Your task to perform on an android device: Open Reddit.com Image 0: 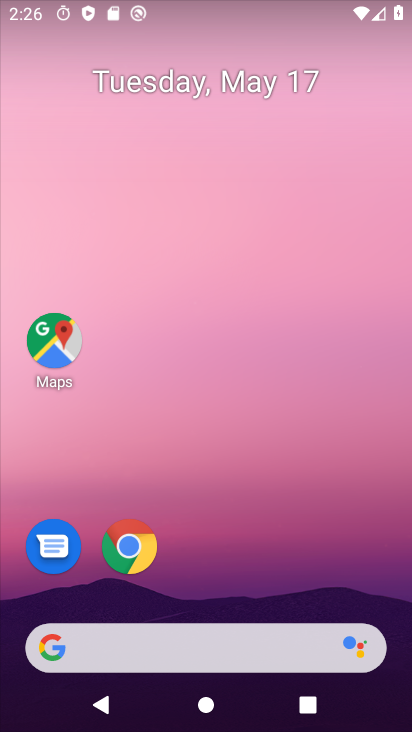
Step 0: click (133, 553)
Your task to perform on an android device: Open Reddit.com Image 1: 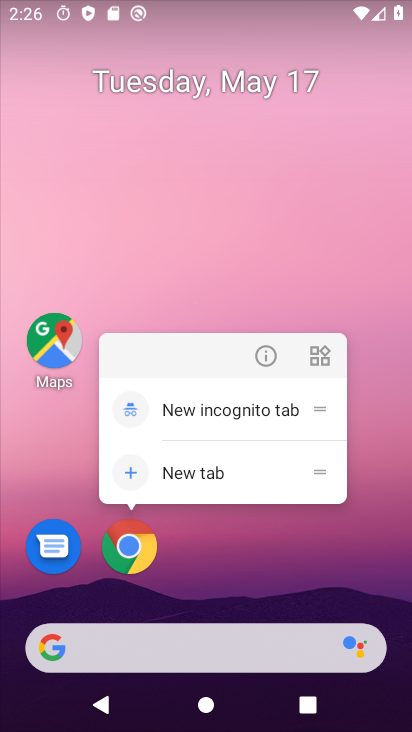
Step 1: click (132, 554)
Your task to perform on an android device: Open Reddit.com Image 2: 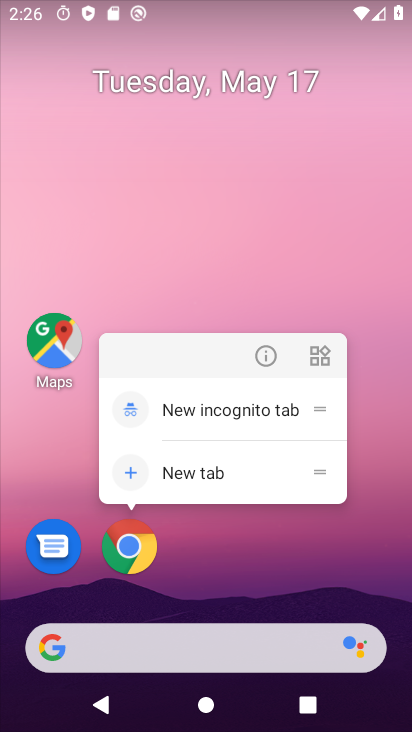
Step 2: click (124, 563)
Your task to perform on an android device: Open Reddit.com Image 3: 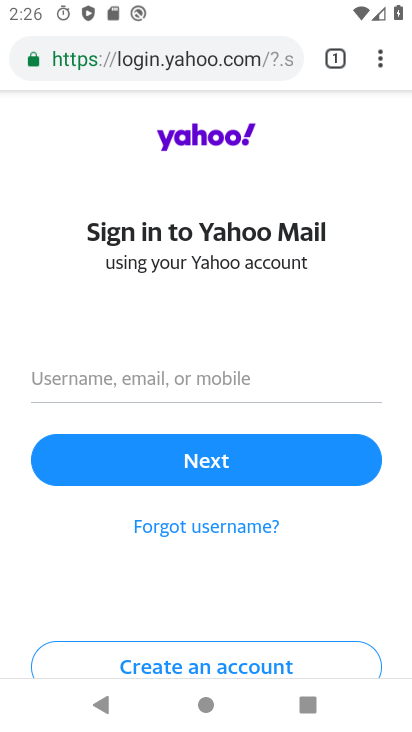
Step 3: click (236, 76)
Your task to perform on an android device: Open Reddit.com Image 4: 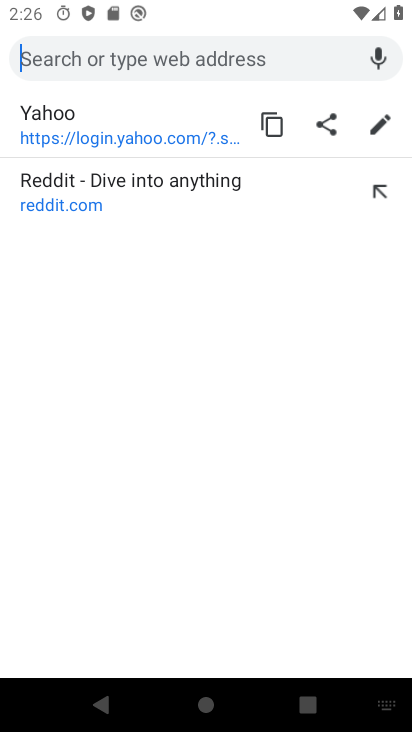
Step 4: click (209, 191)
Your task to perform on an android device: Open Reddit.com Image 5: 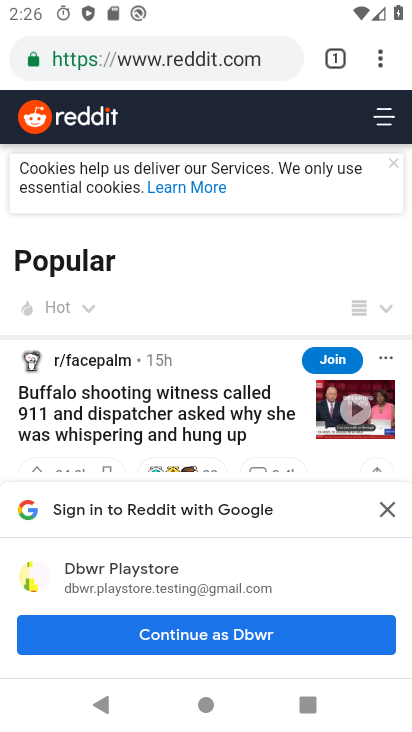
Step 5: task complete